Your task to perform on an android device: Search for "acer nitro" on target, select the first entry, add it to the cart, then select checkout. Image 0: 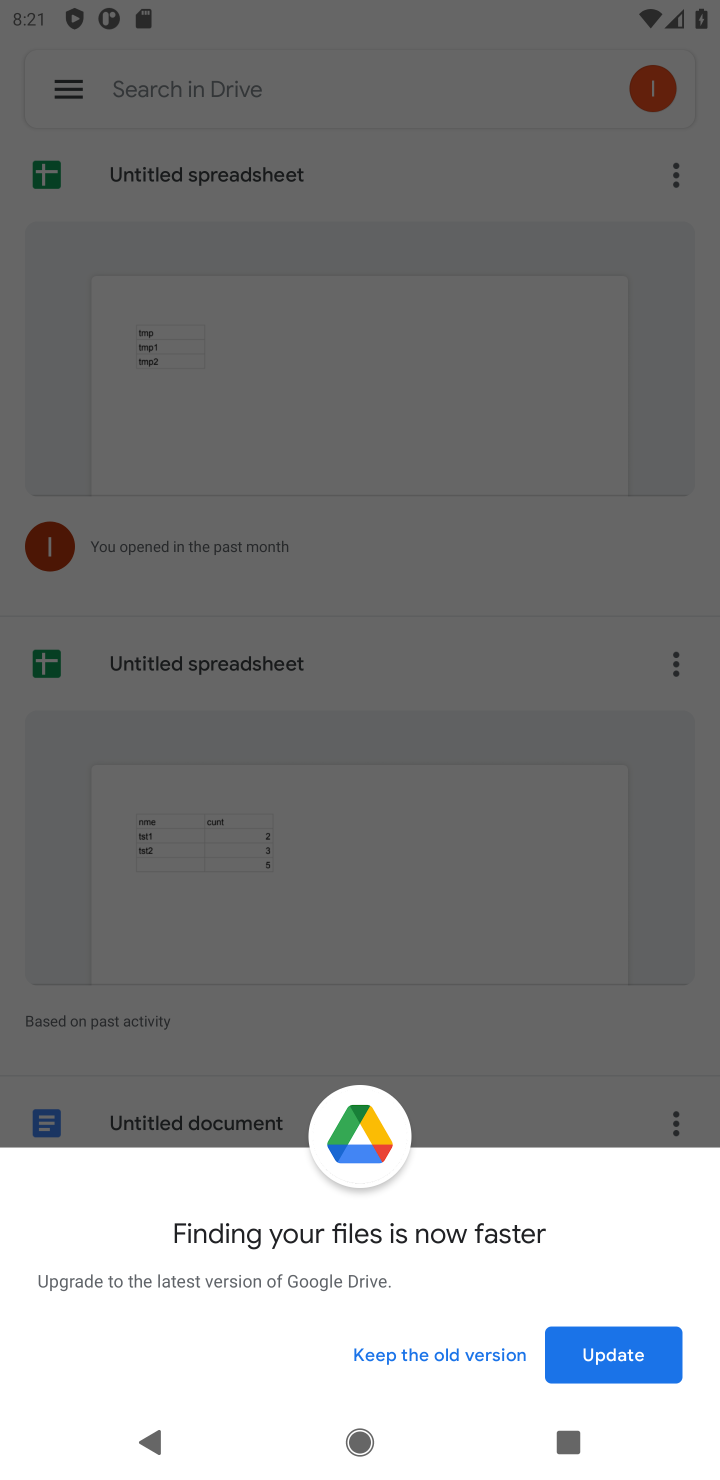
Step 0: press home button
Your task to perform on an android device: Search for "acer nitro" on target, select the first entry, add it to the cart, then select checkout. Image 1: 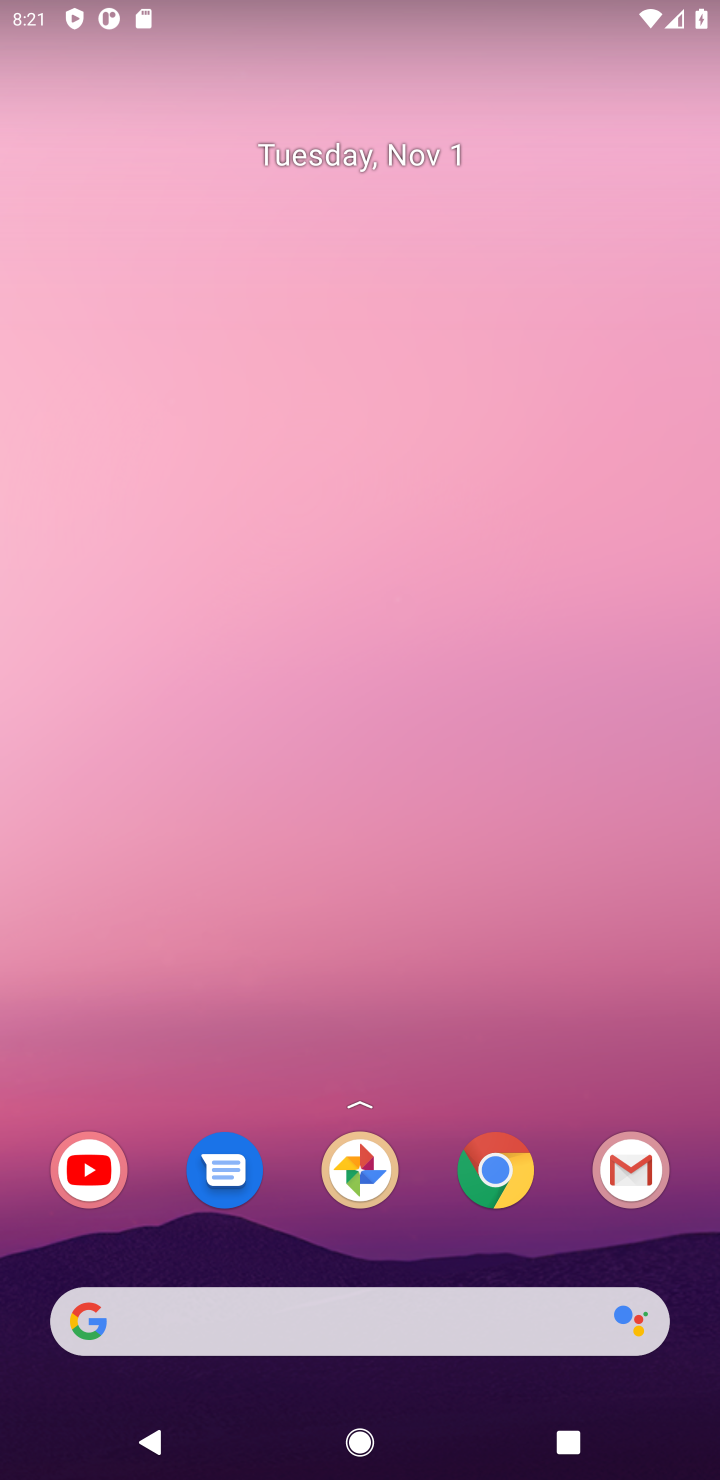
Step 1: click (508, 1192)
Your task to perform on an android device: Search for "acer nitro" on target, select the first entry, add it to the cart, then select checkout. Image 2: 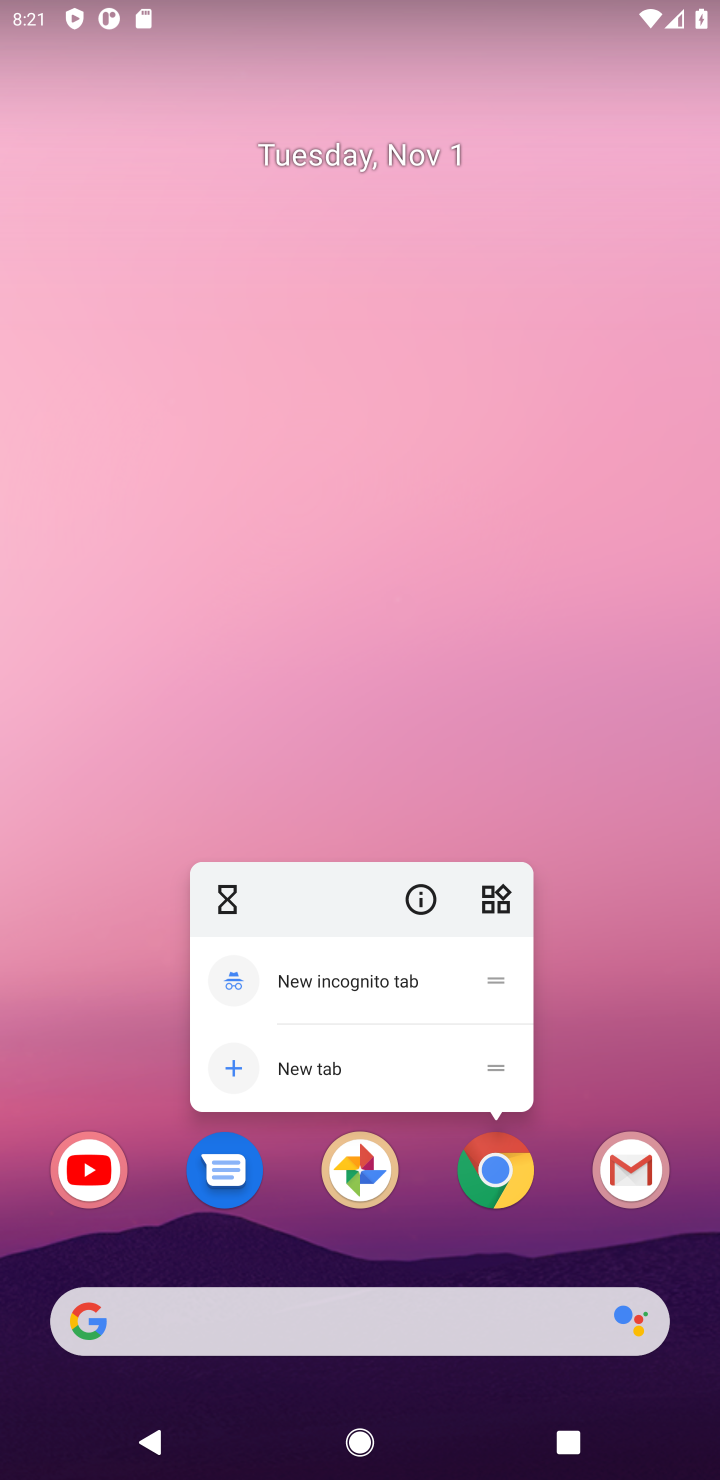
Step 2: click (495, 1199)
Your task to perform on an android device: Search for "acer nitro" on target, select the first entry, add it to the cart, then select checkout. Image 3: 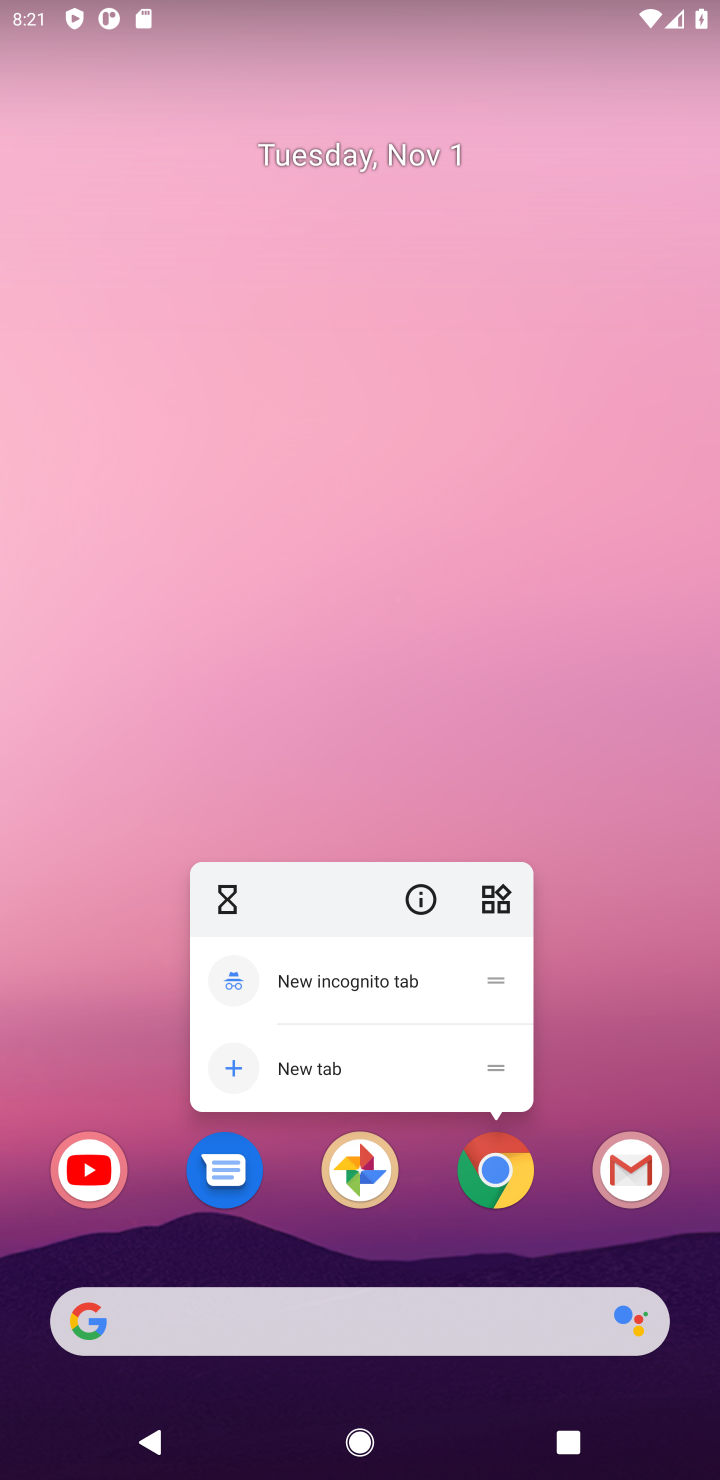
Step 3: click (510, 1166)
Your task to perform on an android device: Search for "acer nitro" on target, select the first entry, add it to the cart, then select checkout. Image 4: 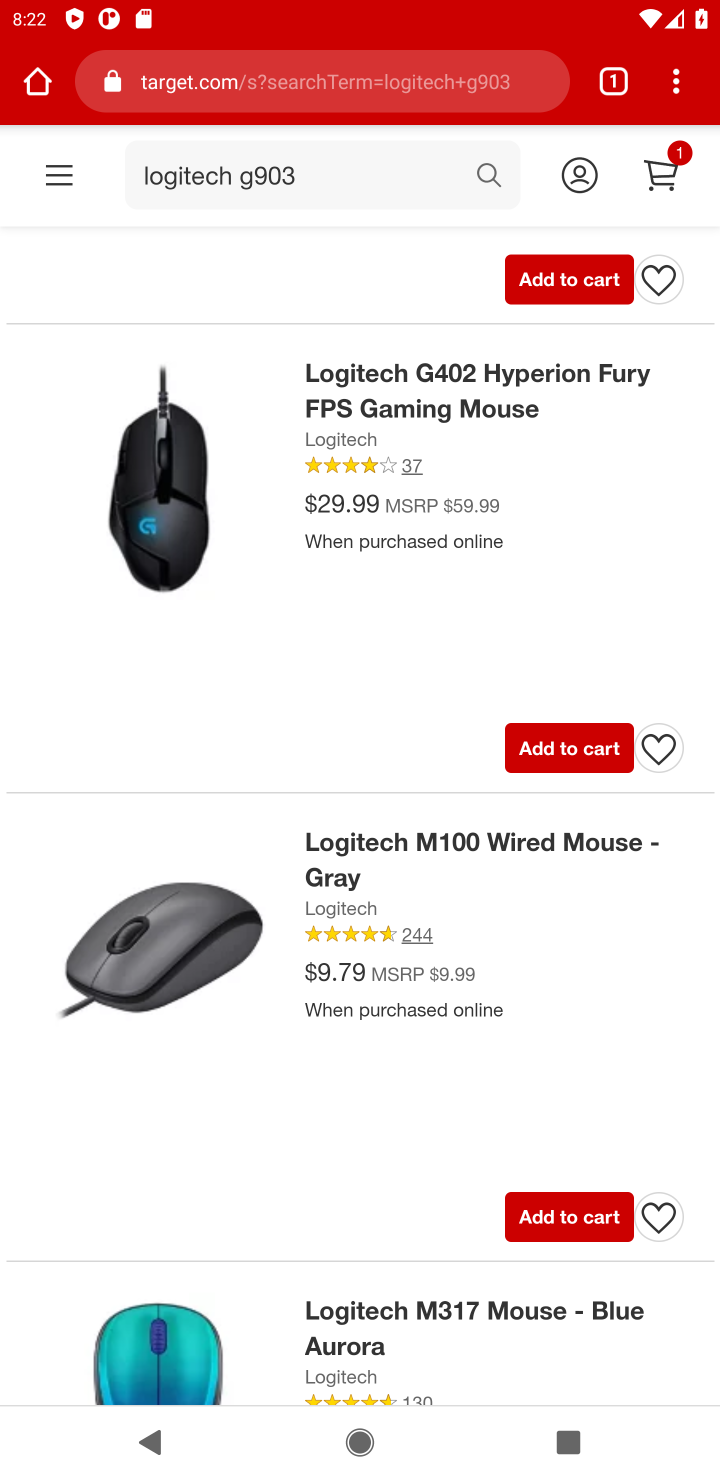
Step 4: click (336, 167)
Your task to perform on an android device: Search for "acer nitro" on target, select the first entry, add it to the cart, then select checkout. Image 5: 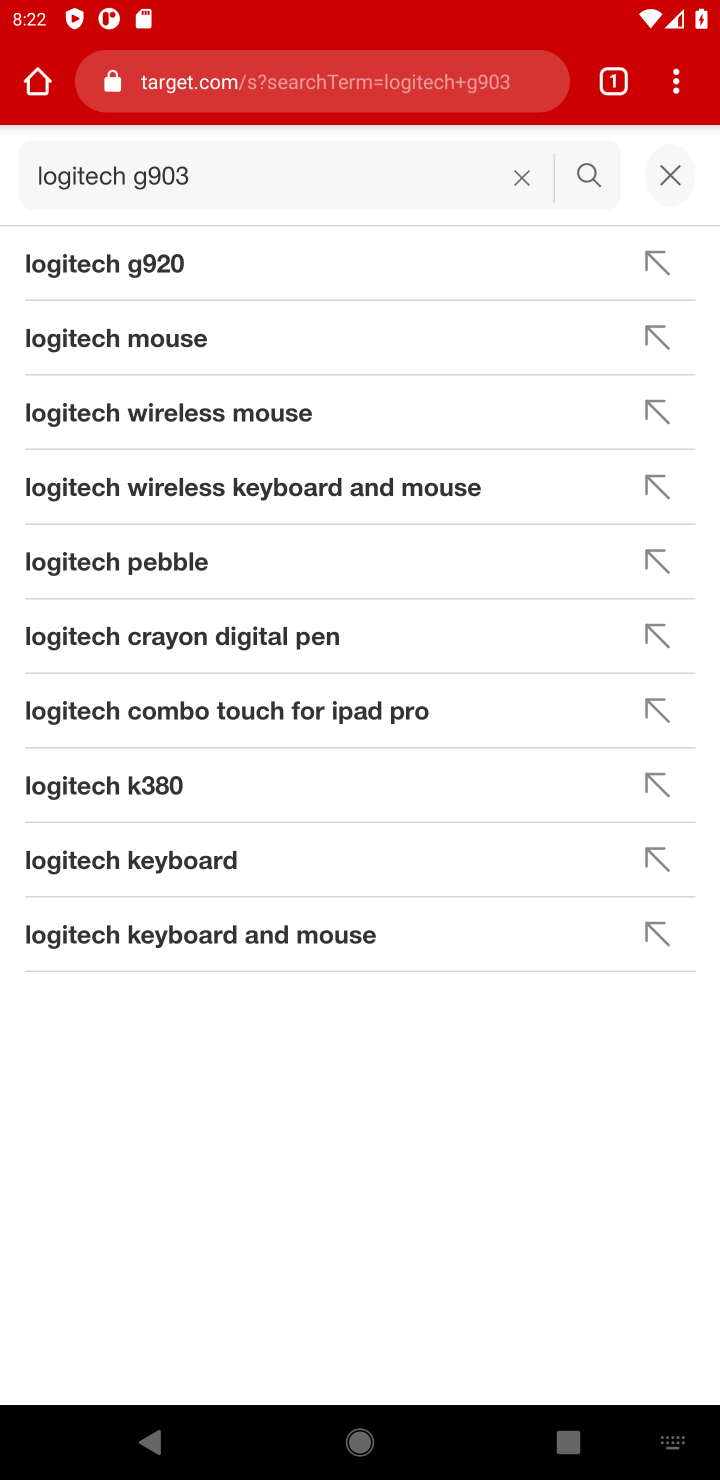
Step 5: click (519, 181)
Your task to perform on an android device: Search for "acer nitro" on target, select the first entry, add it to the cart, then select checkout. Image 6: 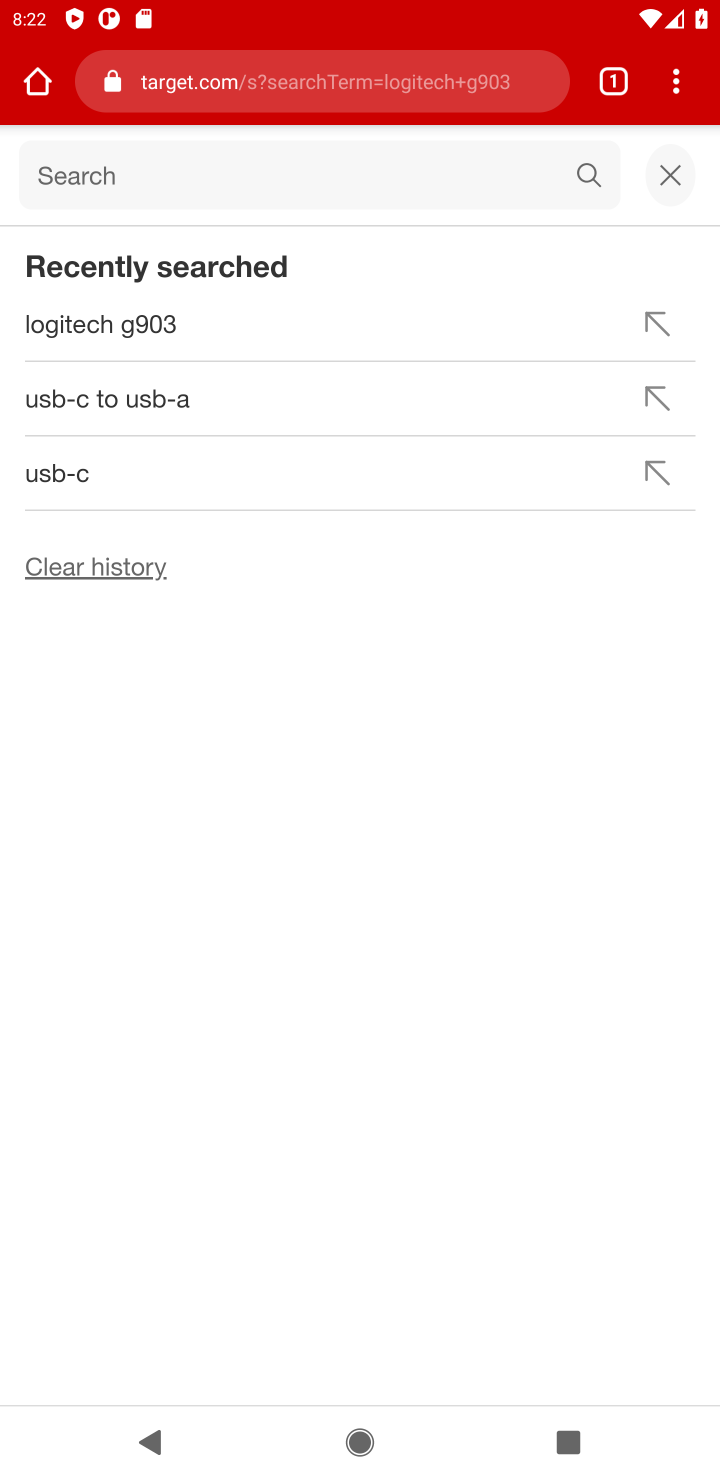
Step 6: click (429, 61)
Your task to perform on an android device: Search for "acer nitro" on target, select the first entry, add it to the cart, then select checkout. Image 7: 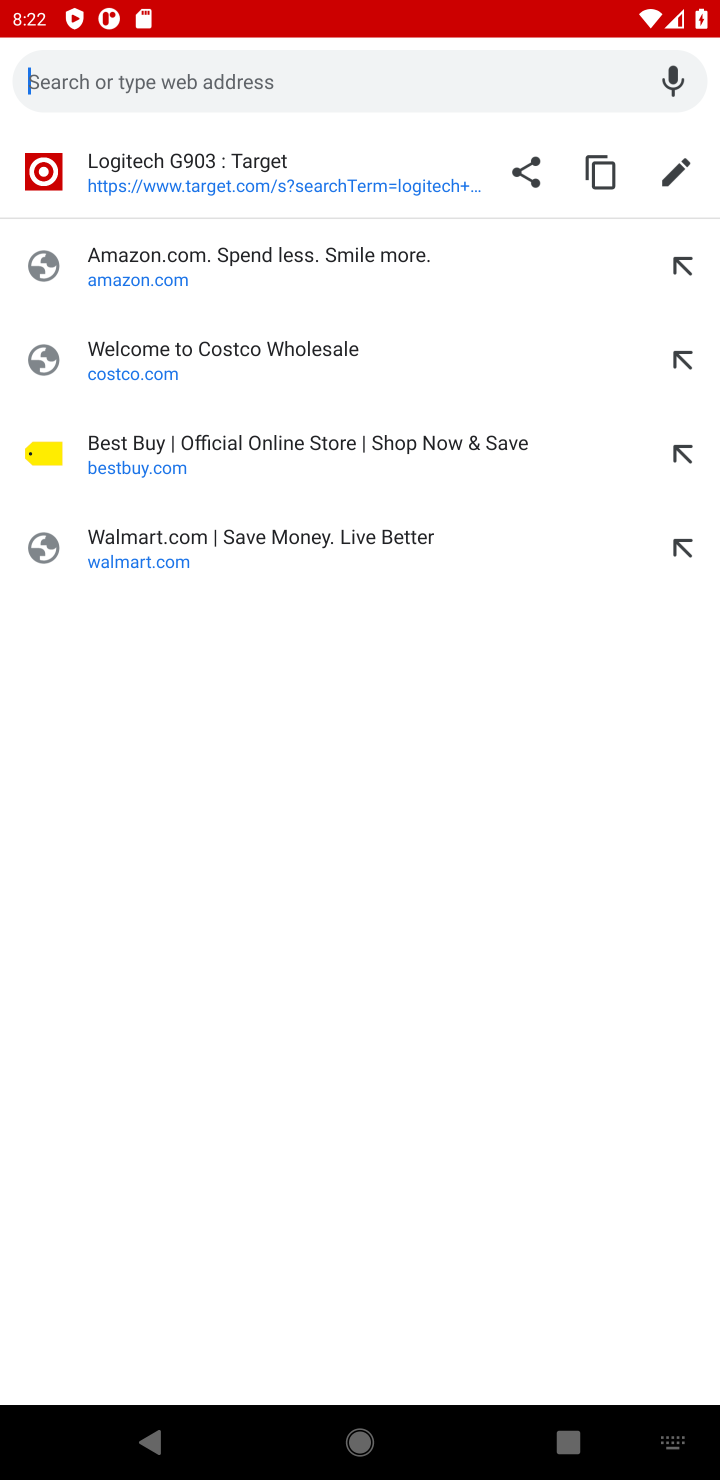
Step 7: type "target"
Your task to perform on an android device: Search for "acer nitro" on target, select the first entry, add it to the cart, then select checkout. Image 8: 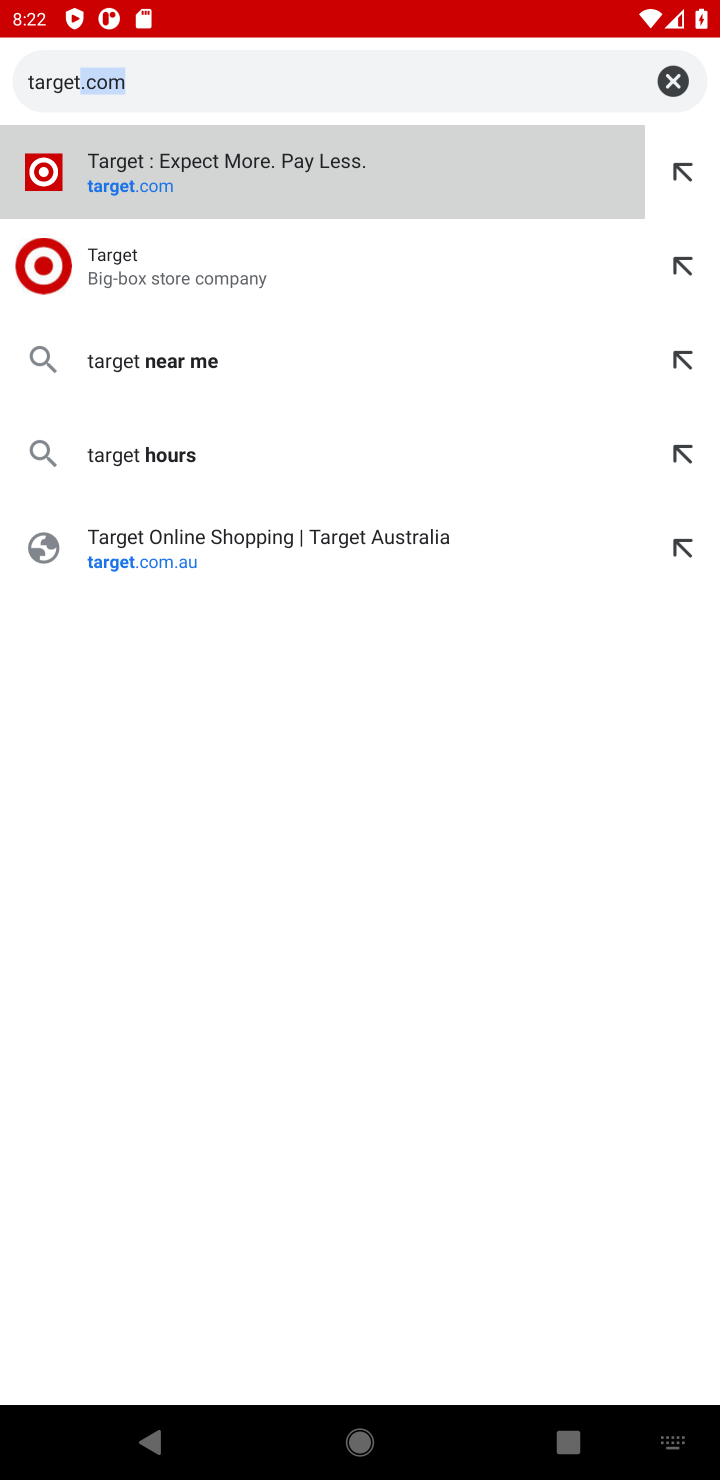
Step 8: press enter
Your task to perform on an android device: Search for "acer nitro" on target, select the first entry, add it to the cart, then select checkout. Image 9: 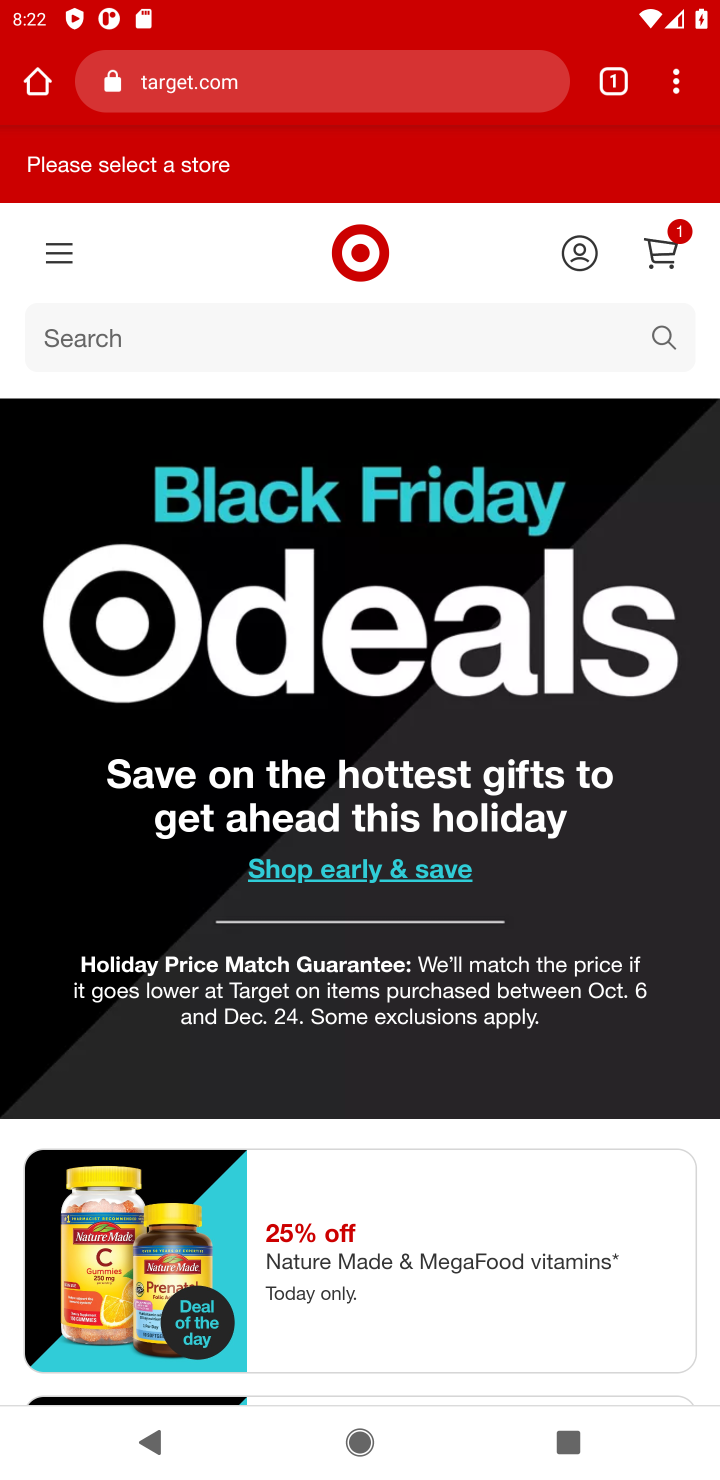
Step 9: click (407, 359)
Your task to perform on an android device: Search for "acer nitro" on target, select the first entry, add it to the cart, then select checkout. Image 10: 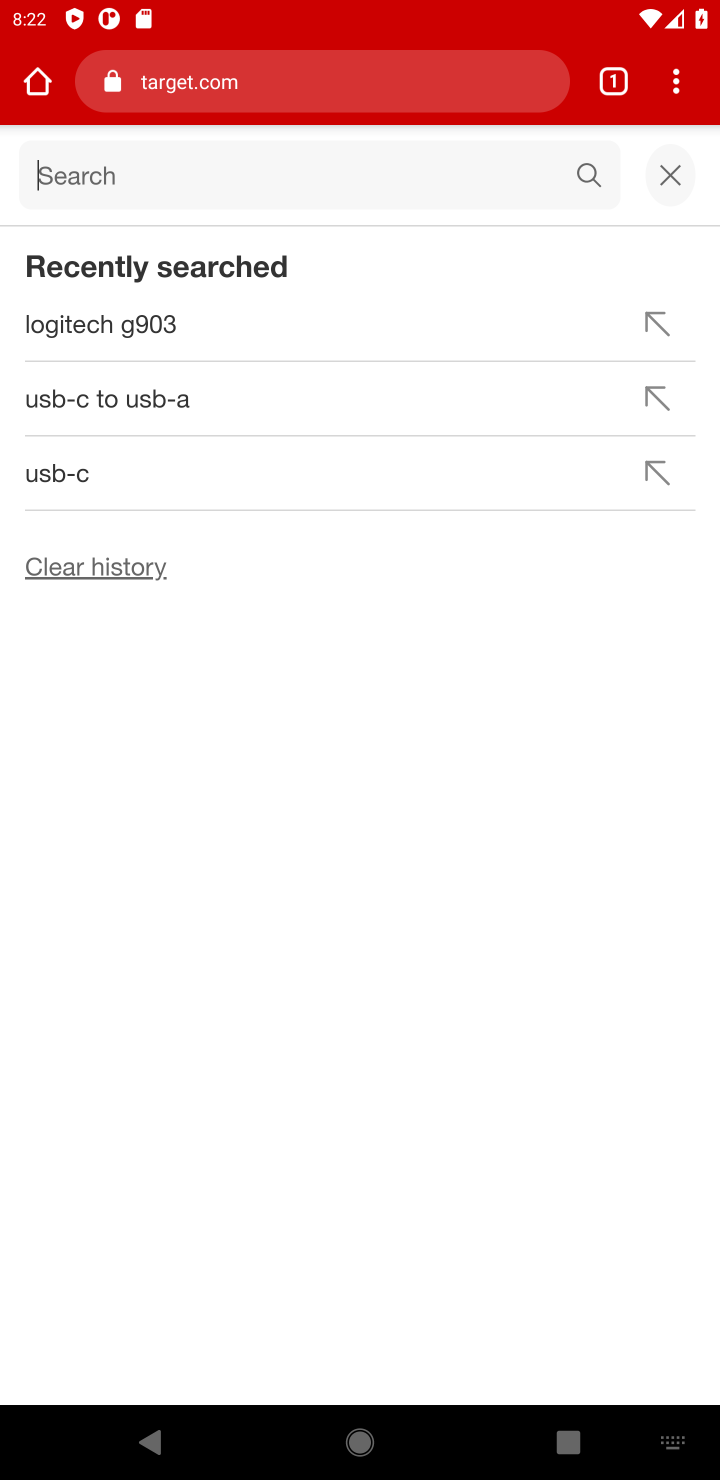
Step 10: type "acer nitro"
Your task to perform on an android device: Search for "acer nitro" on target, select the first entry, add it to the cart, then select checkout. Image 11: 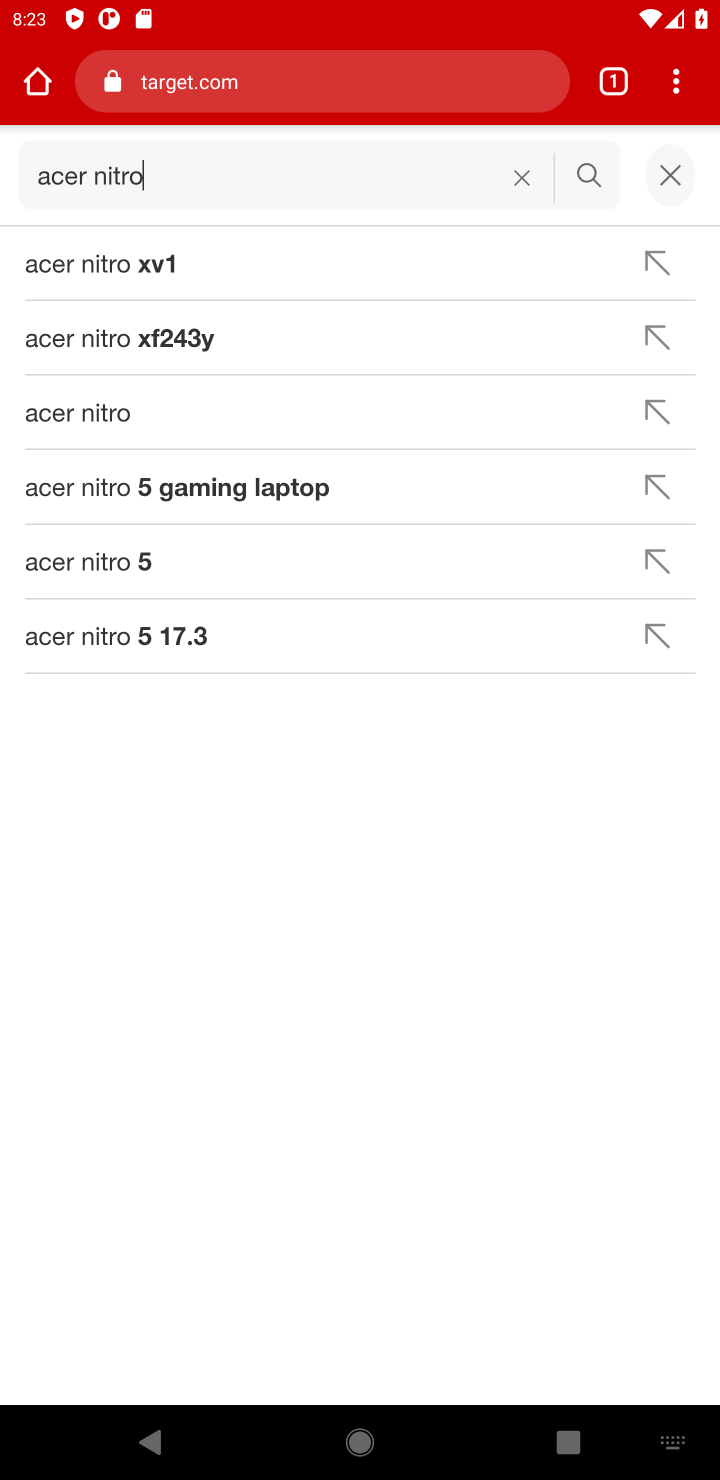
Step 11: press enter
Your task to perform on an android device: Search for "acer nitro" on target, select the first entry, add it to the cart, then select checkout. Image 12: 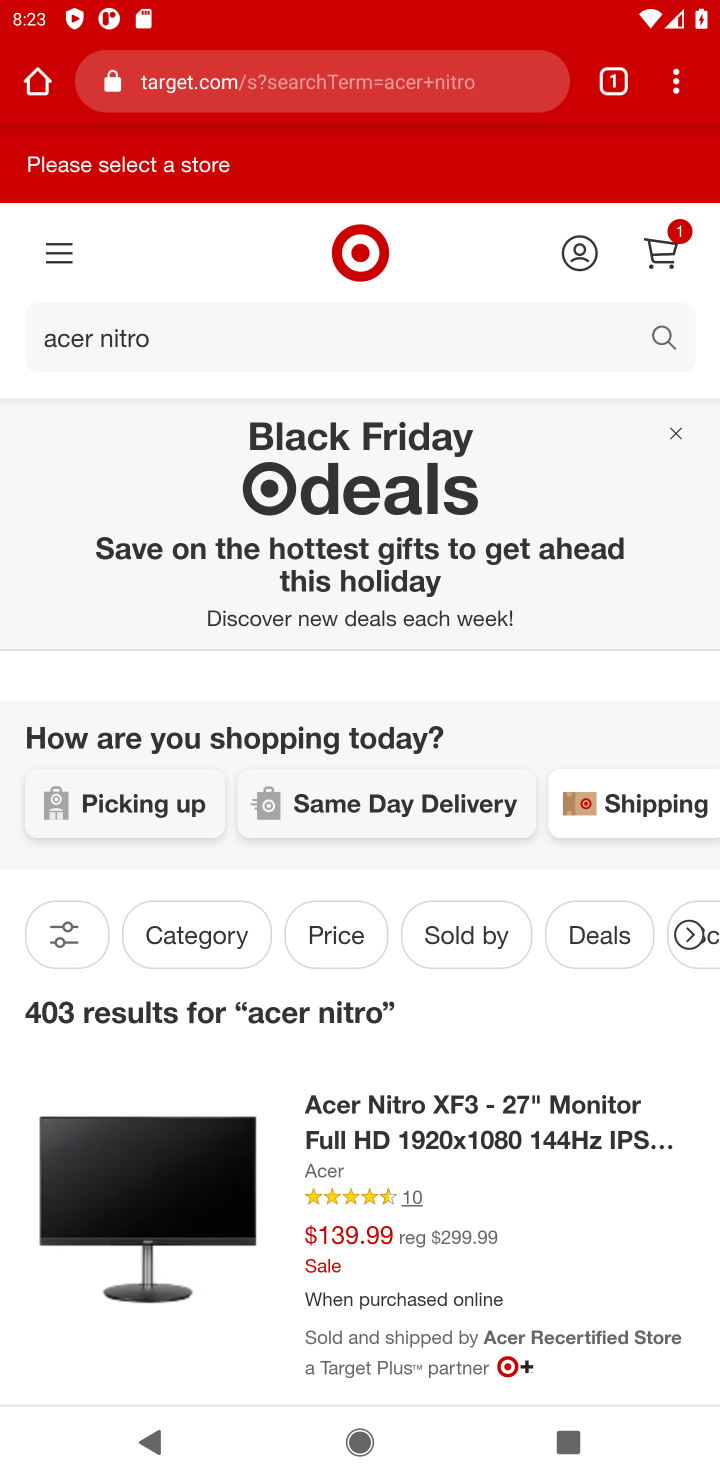
Step 12: drag from (501, 1198) to (481, 925)
Your task to perform on an android device: Search for "acer nitro" on target, select the first entry, add it to the cart, then select checkout. Image 13: 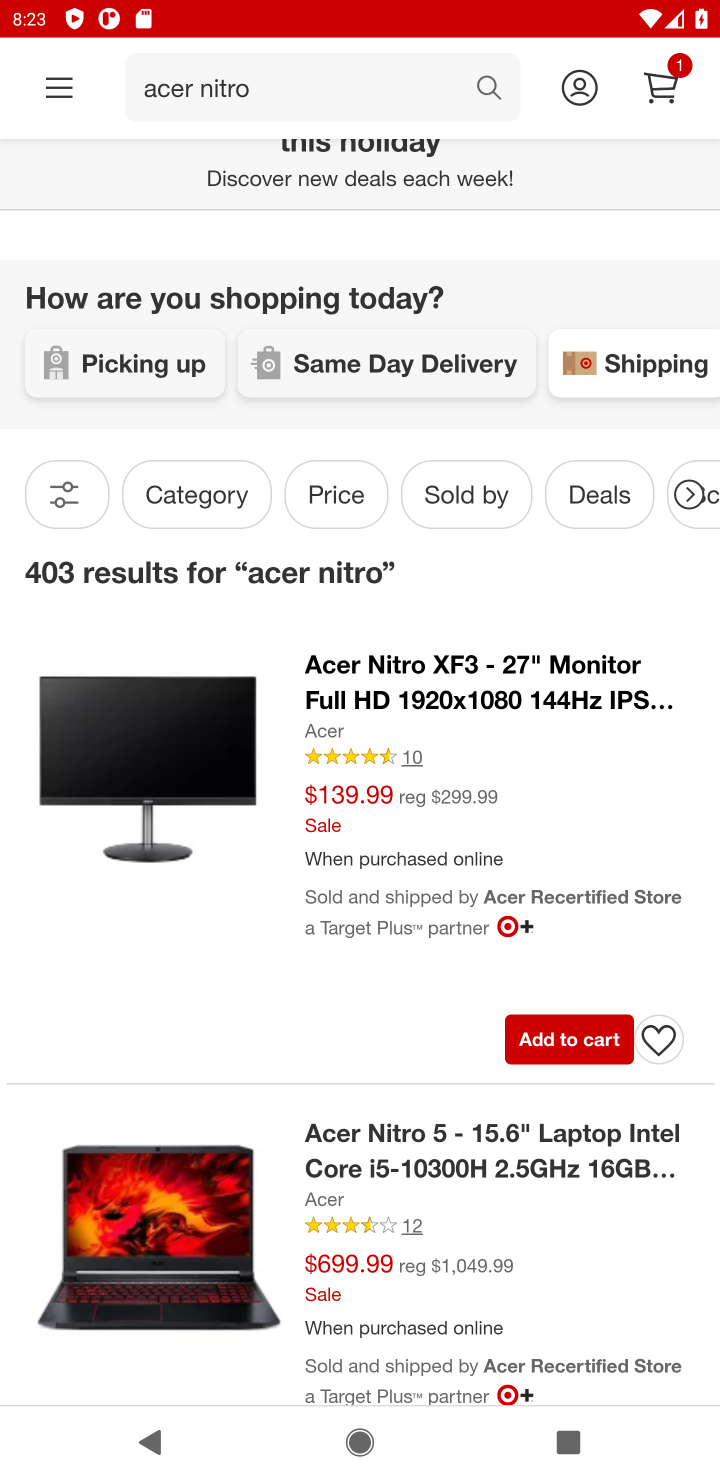
Step 13: click (549, 689)
Your task to perform on an android device: Search for "acer nitro" on target, select the first entry, add it to the cart, then select checkout. Image 14: 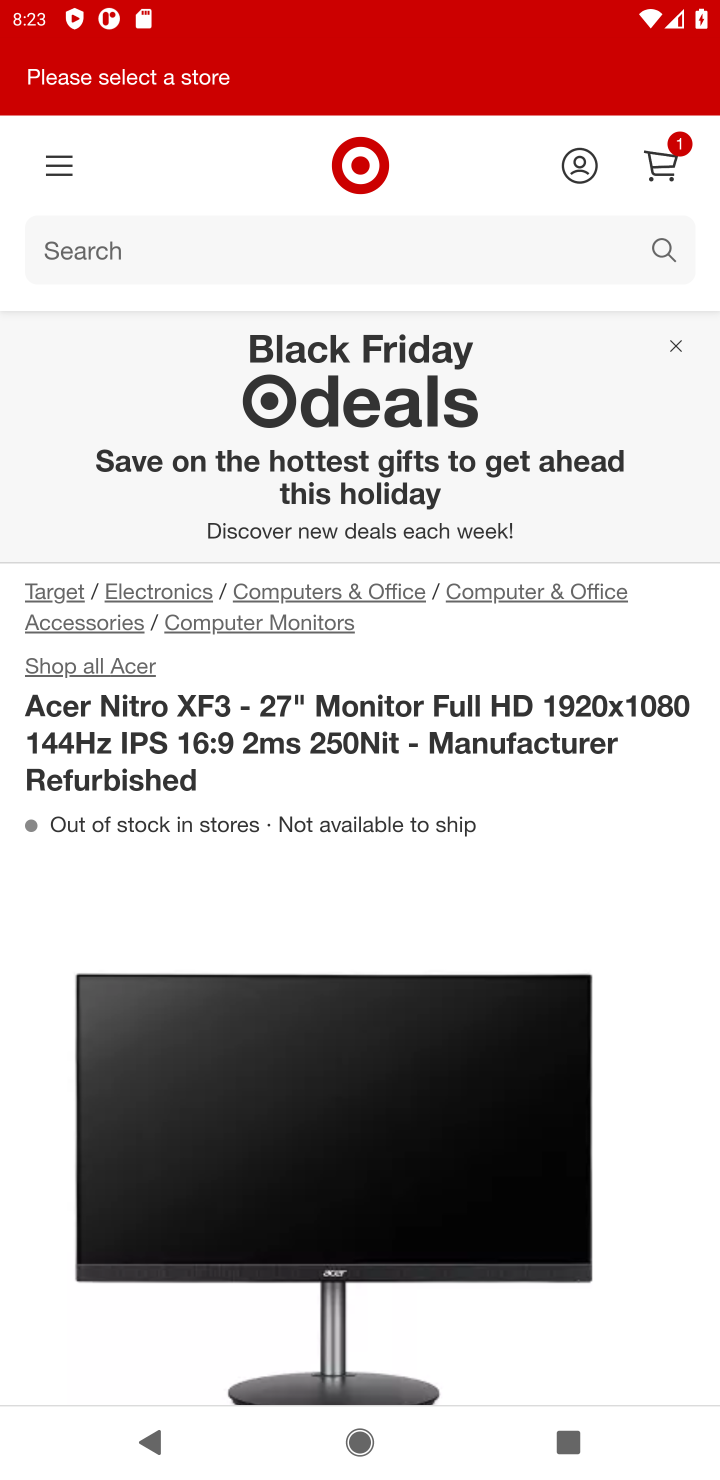
Step 14: drag from (528, 492) to (455, 221)
Your task to perform on an android device: Search for "acer nitro" on target, select the first entry, add it to the cart, then select checkout. Image 15: 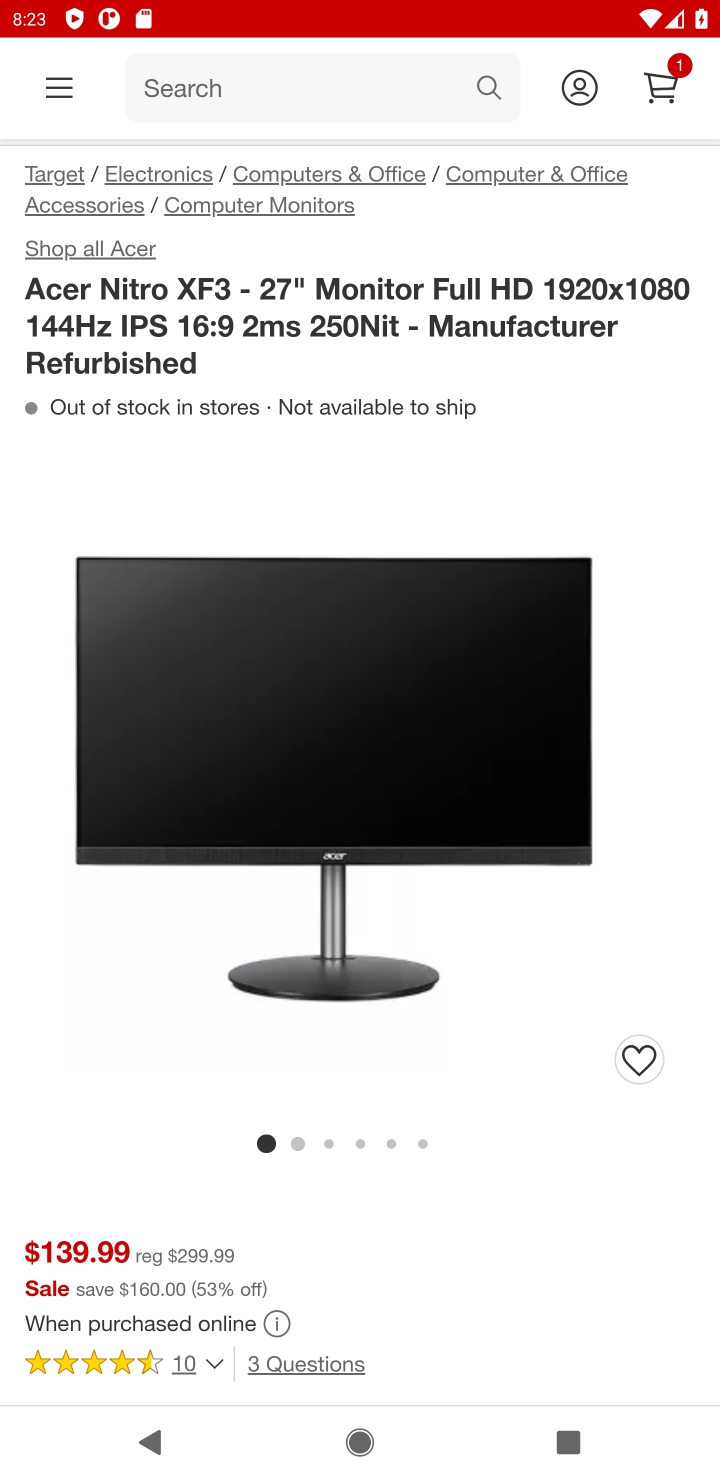
Step 15: drag from (392, 1322) to (416, 609)
Your task to perform on an android device: Search for "acer nitro" on target, select the first entry, add it to the cart, then select checkout. Image 16: 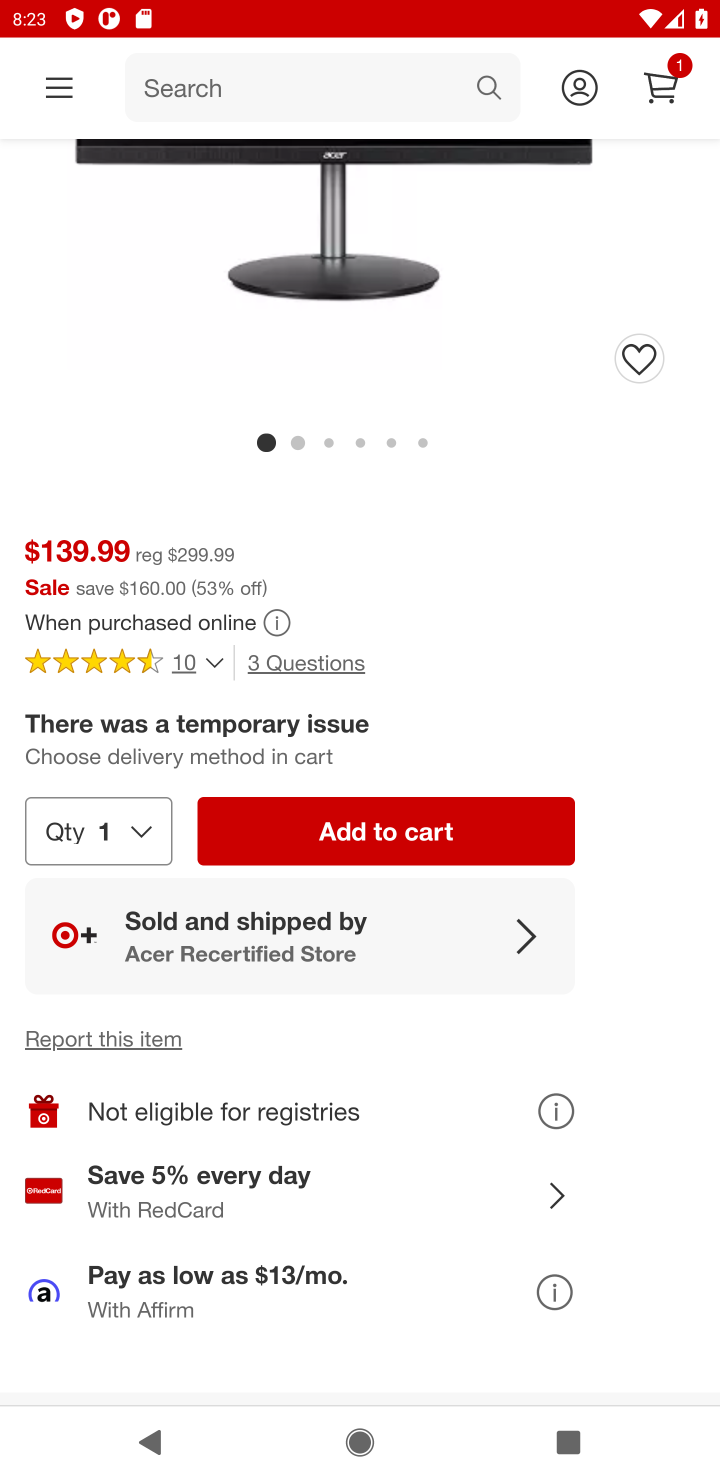
Step 16: click (358, 843)
Your task to perform on an android device: Search for "acer nitro" on target, select the first entry, add it to the cart, then select checkout. Image 17: 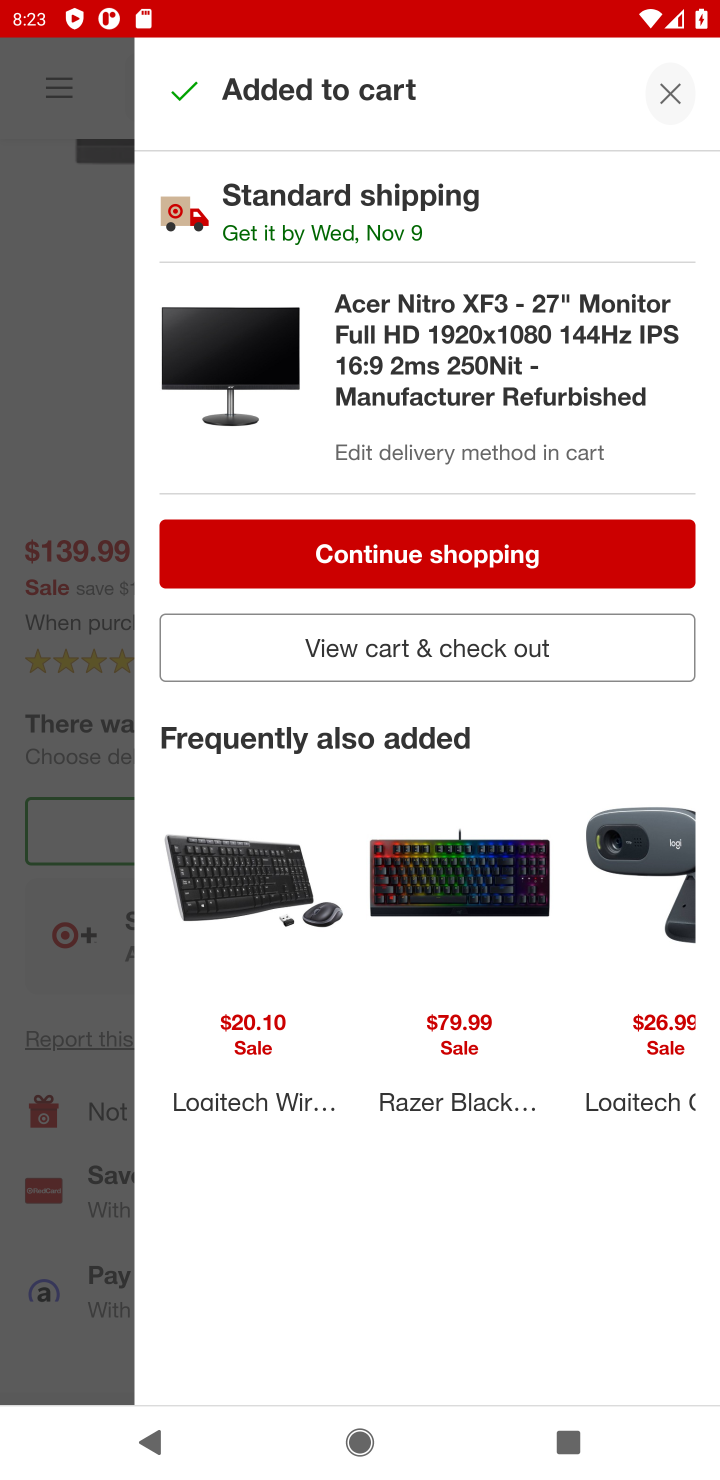
Step 17: click (520, 653)
Your task to perform on an android device: Search for "acer nitro" on target, select the first entry, add it to the cart, then select checkout. Image 18: 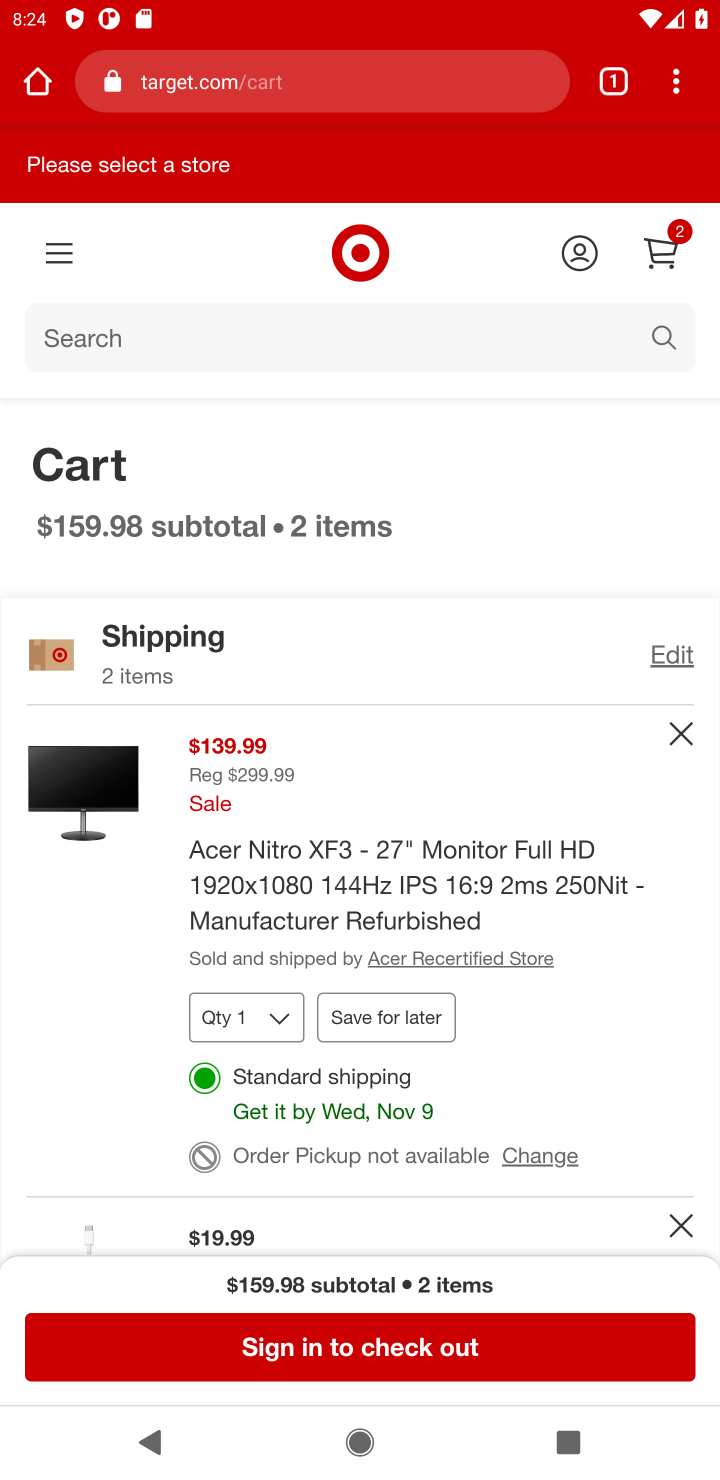
Step 18: drag from (615, 1169) to (492, 773)
Your task to perform on an android device: Search for "acer nitro" on target, select the first entry, add it to the cart, then select checkout. Image 19: 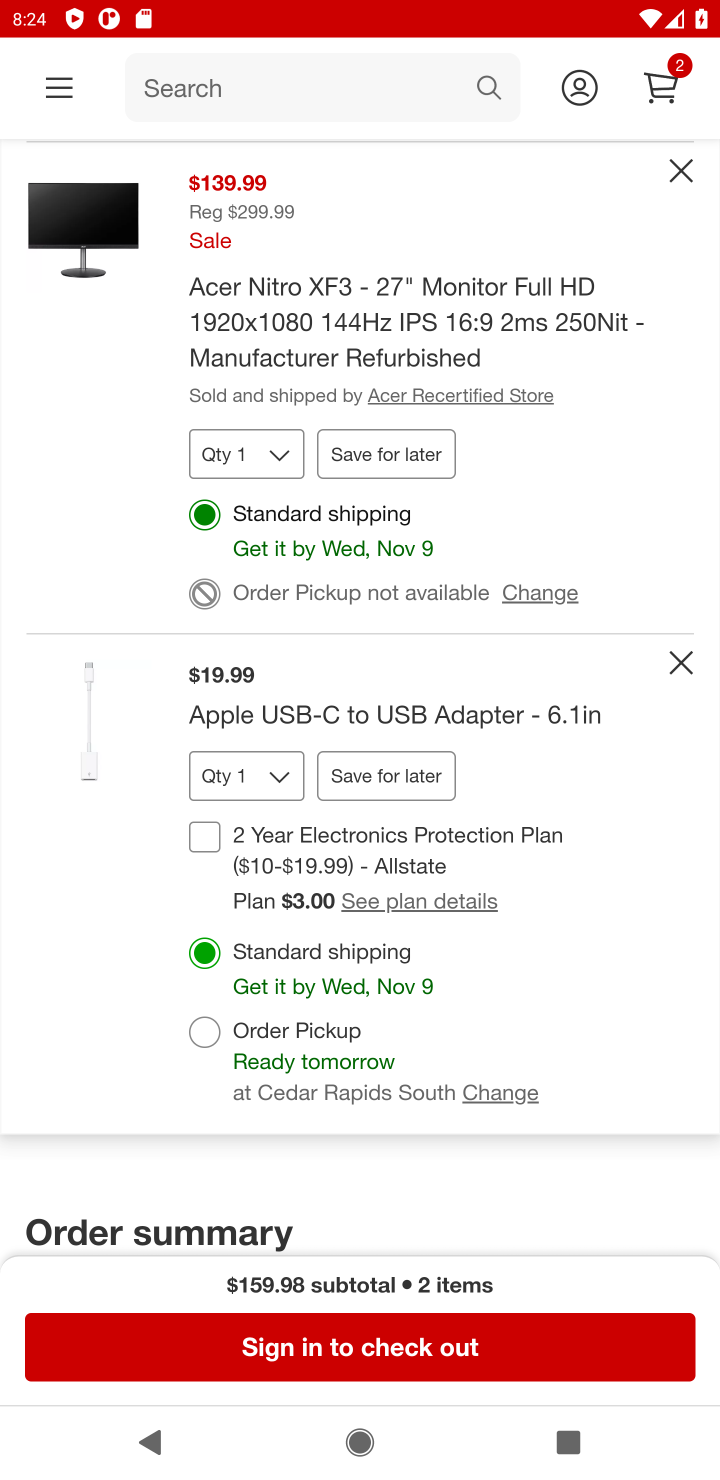
Step 19: click (430, 1356)
Your task to perform on an android device: Search for "acer nitro" on target, select the first entry, add it to the cart, then select checkout. Image 20: 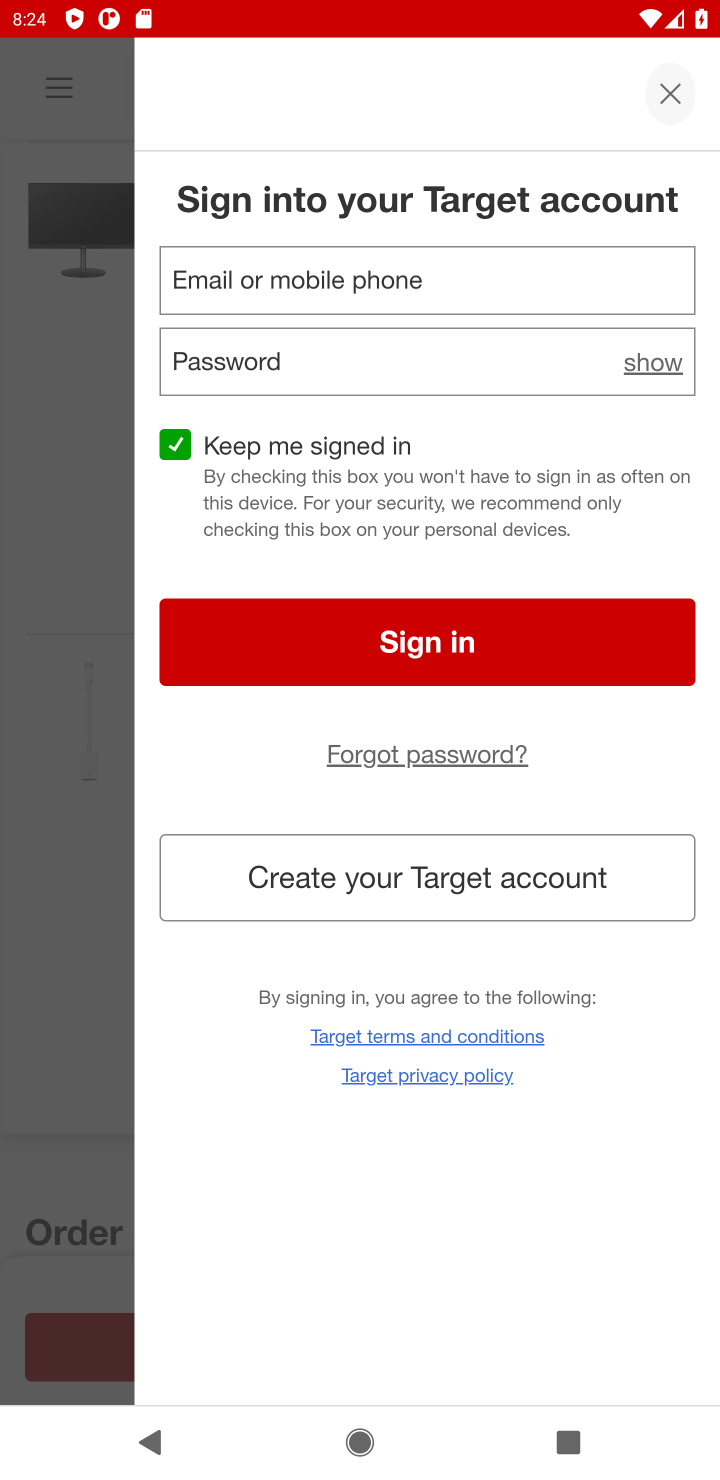
Step 20: task complete